Your task to perform on an android device: turn off wifi Image 0: 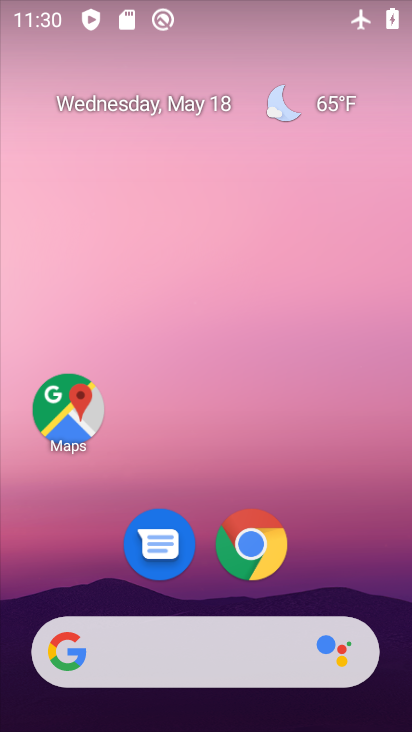
Step 0: drag from (349, 566) to (357, 92)
Your task to perform on an android device: turn off wifi Image 1: 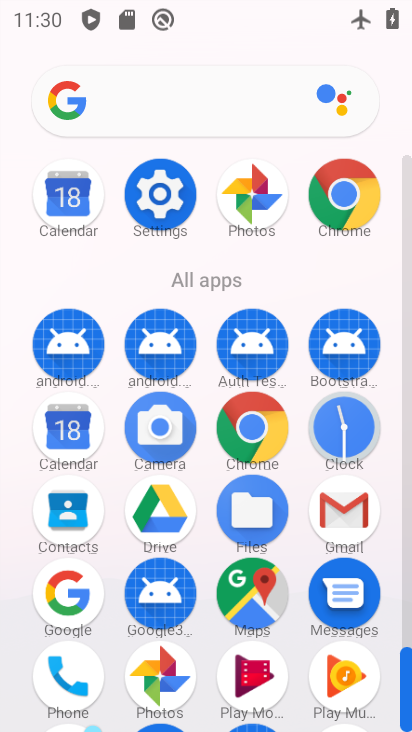
Step 1: click (157, 206)
Your task to perform on an android device: turn off wifi Image 2: 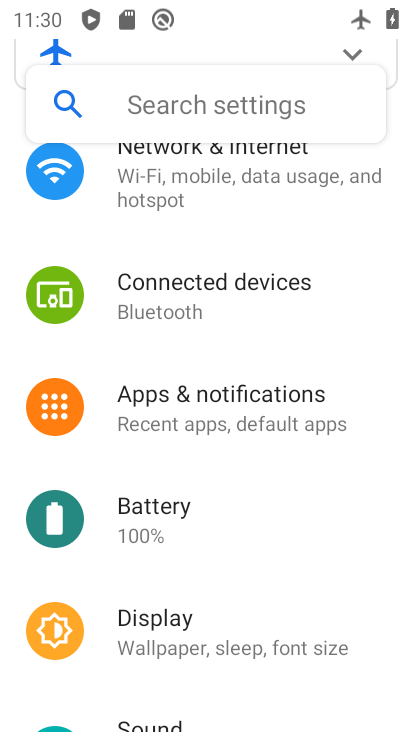
Step 2: drag from (319, 585) to (314, 352)
Your task to perform on an android device: turn off wifi Image 3: 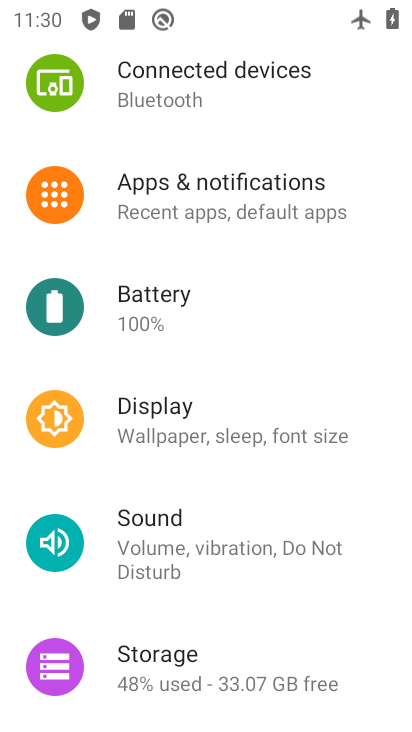
Step 3: drag from (335, 645) to (340, 357)
Your task to perform on an android device: turn off wifi Image 4: 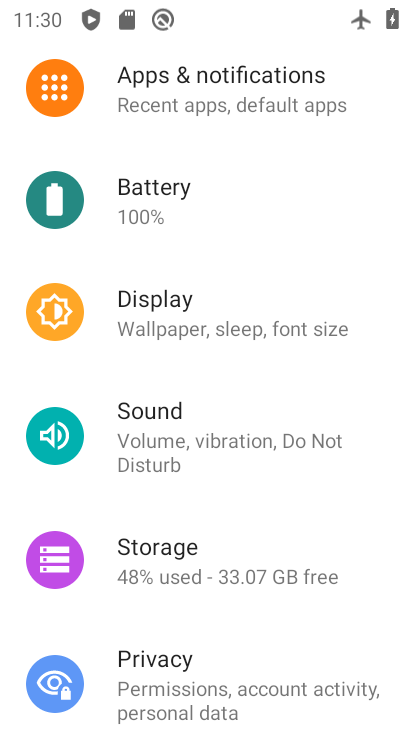
Step 4: drag from (348, 628) to (365, 339)
Your task to perform on an android device: turn off wifi Image 5: 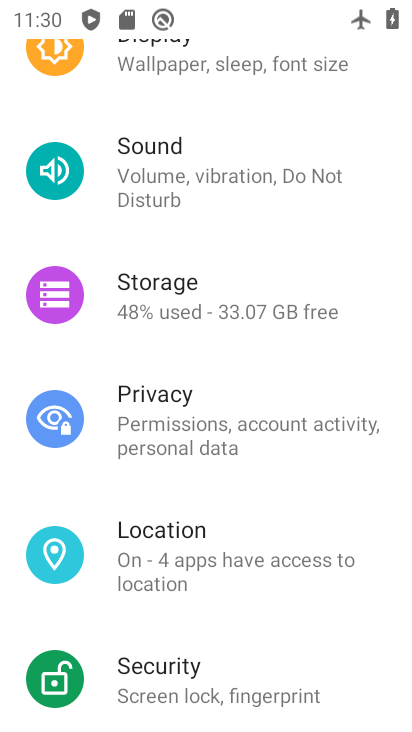
Step 5: drag from (350, 669) to (346, 403)
Your task to perform on an android device: turn off wifi Image 6: 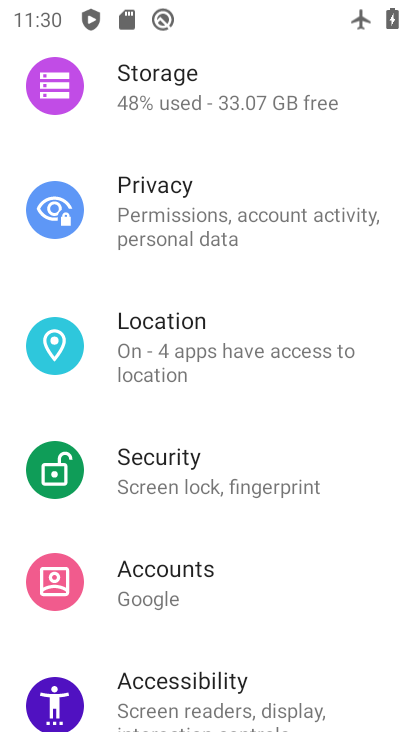
Step 6: drag from (339, 639) to (359, 417)
Your task to perform on an android device: turn off wifi Image 7: 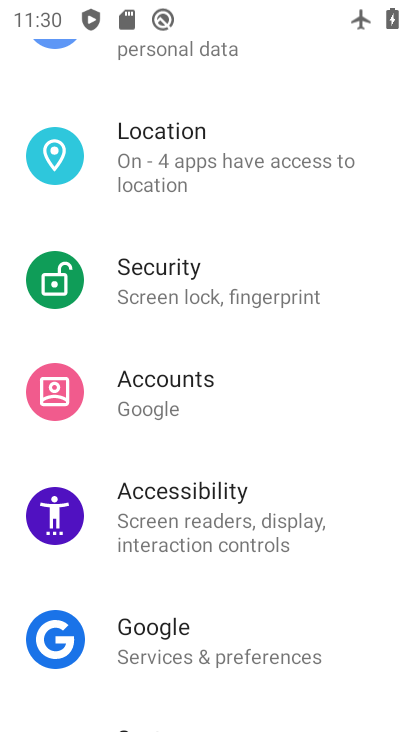
Step 7: drag from (347, 647) to (359, 448)
Your task to perform on an android device: turn off wifi Image 8: 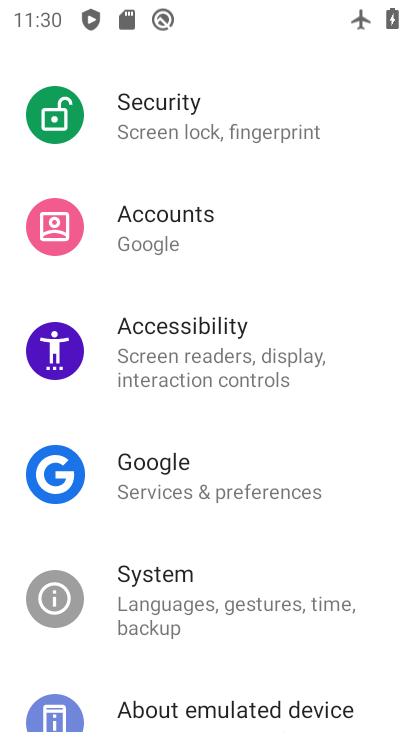
Step 8: drag from (363, 648) to (356, 443)
Your task to perform on an android device: turn off wifi Image 9: 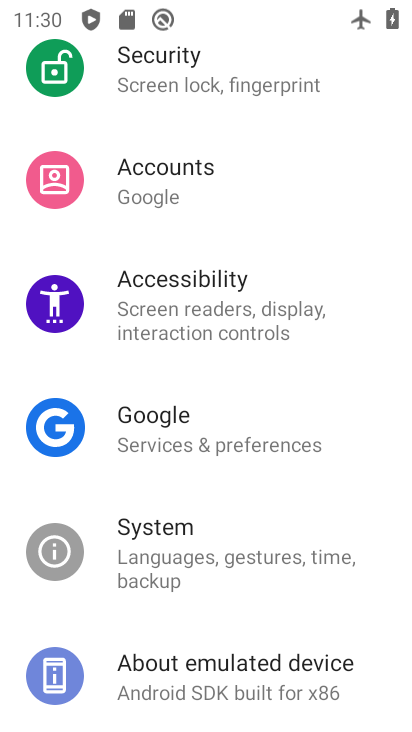
Step 9: drag from (351, 662) to (352, 457)
Your task to perform on an android device: turn off wifi Image 10: 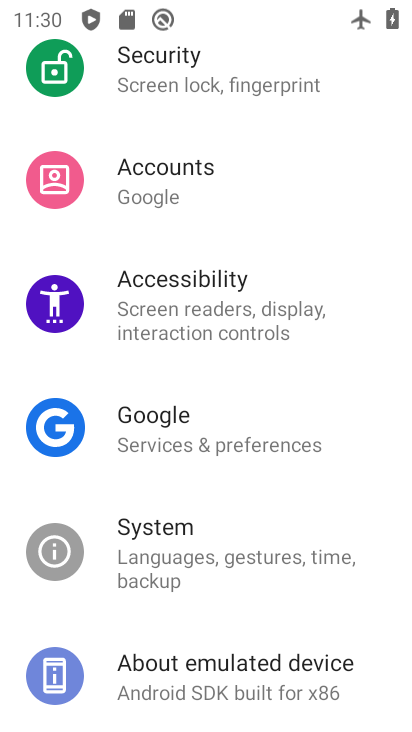
Step 10: drag from (378, 260) to (364, 534)
Your task to perform on an android device: turn off wifi Image 11: 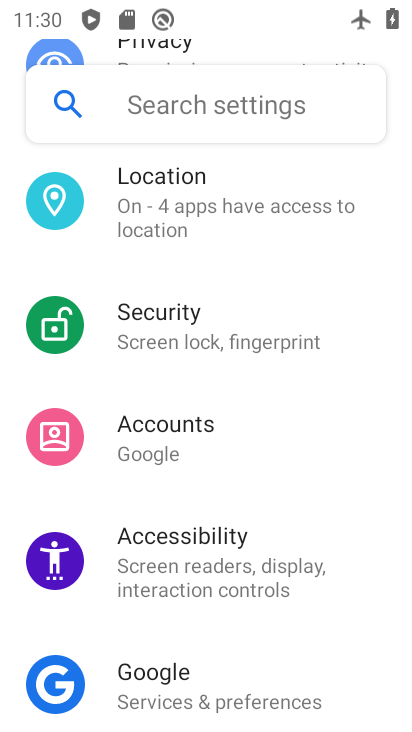
Step 11: drag from (344, 258) to (353, 468)
Your task to perform on an android device: turn off wifi Image 12: 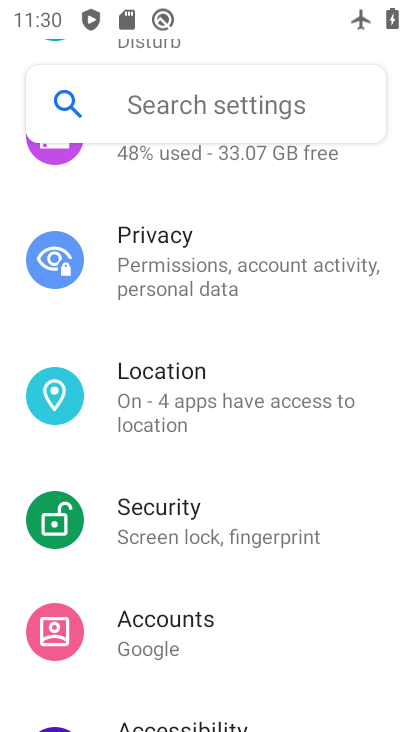
Step 12: drag from (366, 257) to (360, 433)
Your task to perform on an android device: turn off wifi Image 13: 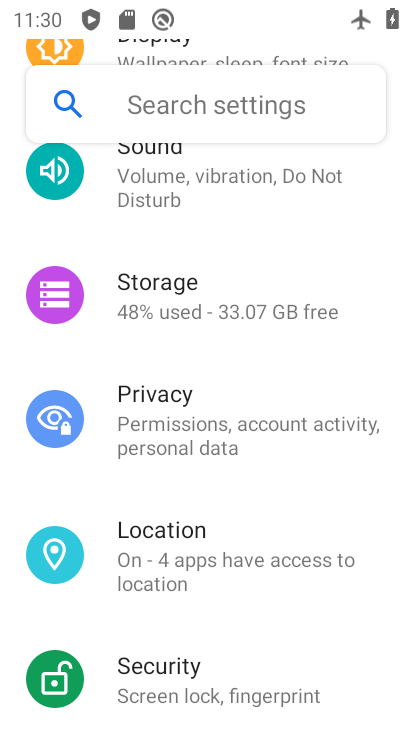
Step 13: drag from (364, 276) to (356, 483)
Your task to perform on an android device: turn off wifi Image 14: 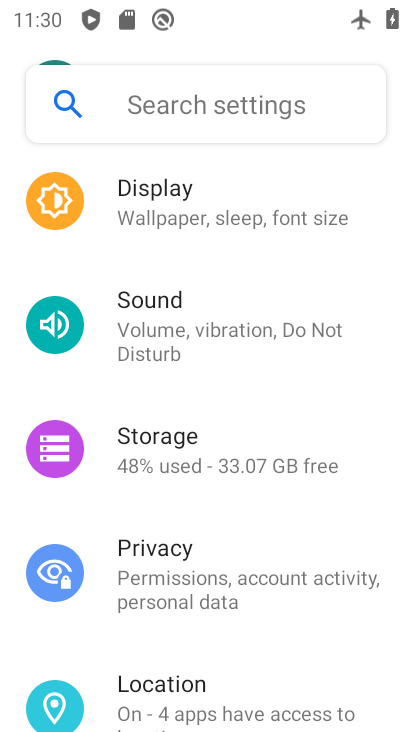
Step 14: drag from (359, 197) to (352, 456)
Your task to perform on an android device: turn off wifi Image 15: 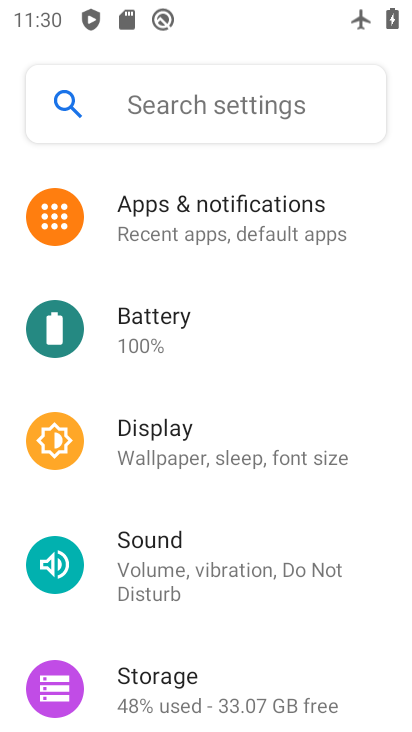
Step 15: drag from (363, 169) to (366, 372)
Your task to perform on an android device: turn off wifi Image 16: 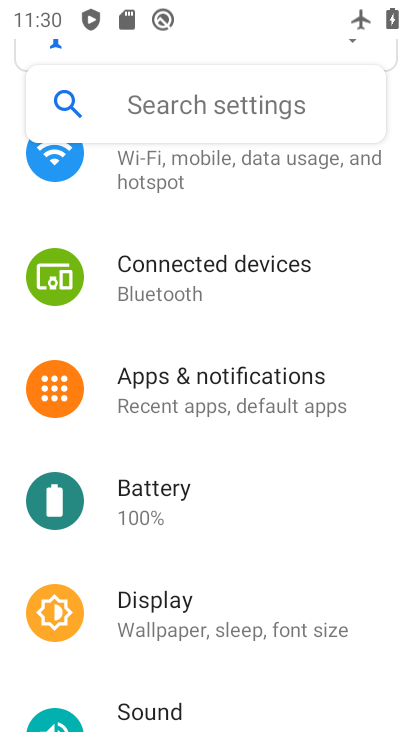
Step 16: drag from (348, 186) to (357, 348)
Your task to perform on an android device: turn off wifi Image 17: 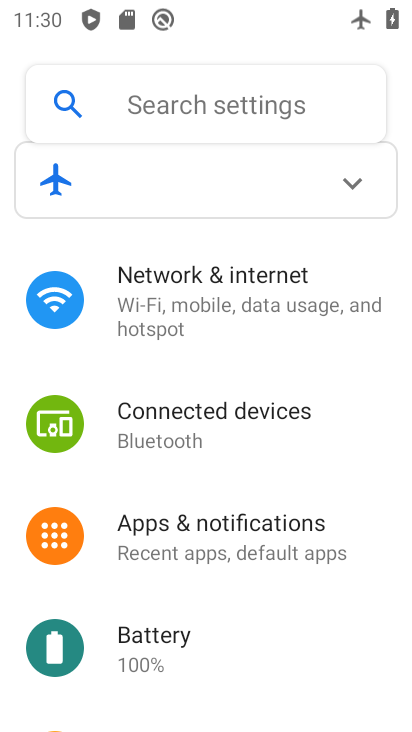
Step 17: click (256, 285)
Your task to perform on an android device: turn off wifi Image 18: 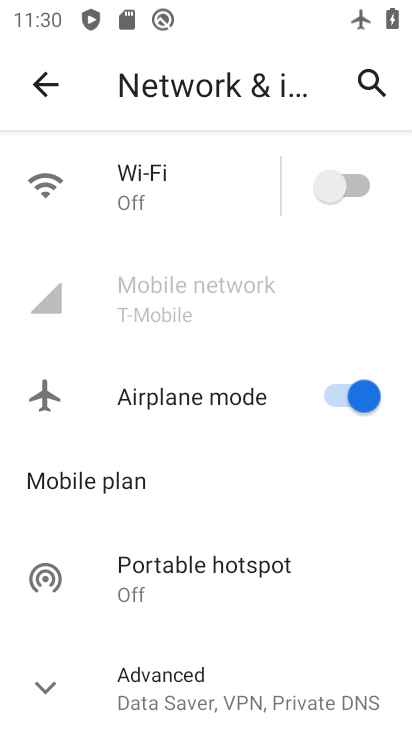
Step 18: task complete